Your task to perform on an android device: Open the map Image 0: 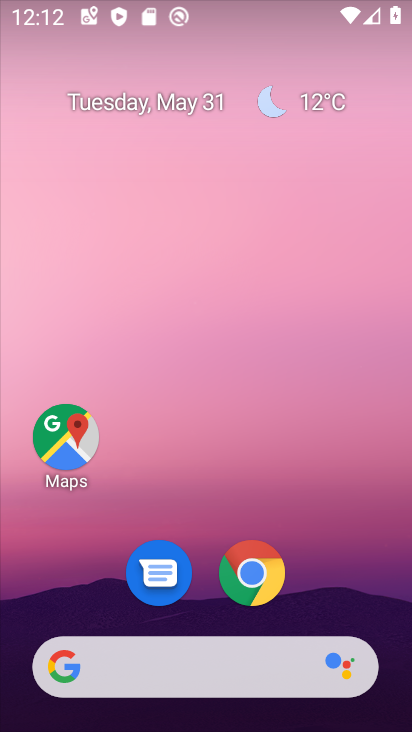
Step 0: drag from (330, 582) to (370, 116)
Your task to perform on an android device: Open the map Image 1: 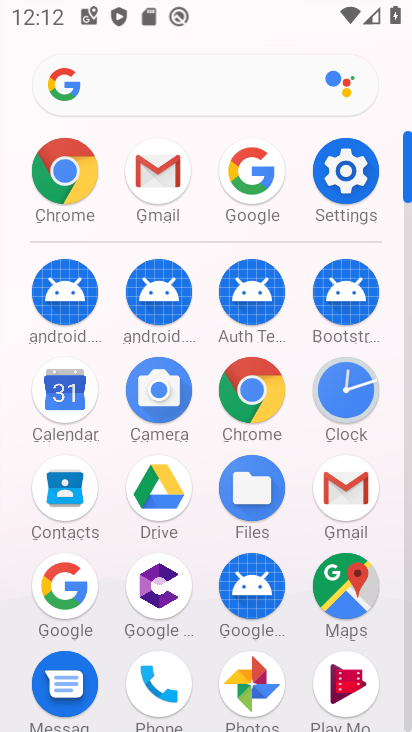
Step 1: click (336, 584)
Your task to perform on an android device: Open the map Image 2: 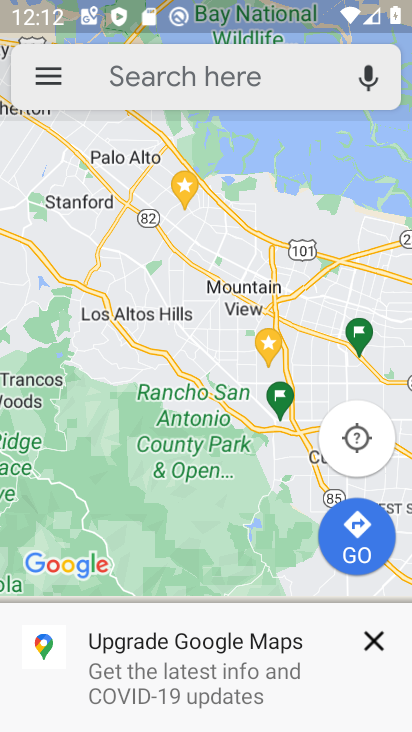
Step 2: task complete